Your task to perform on an android device: Go to sound settings Image 0: 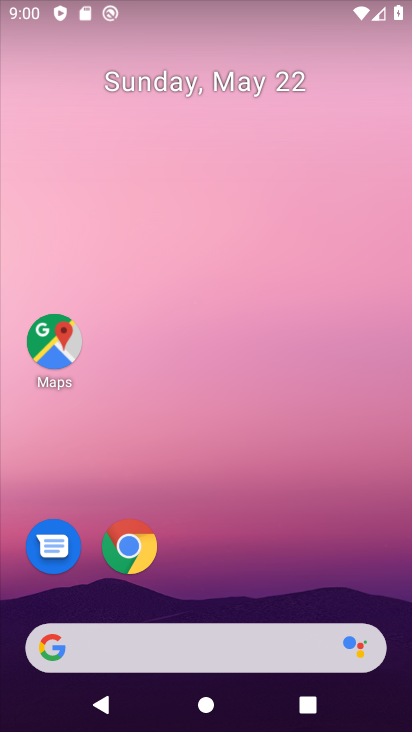
Step 0: drag from (154, 609) to (246, 107)
Your task to perform on an android device: Go to sound settings Image 1: 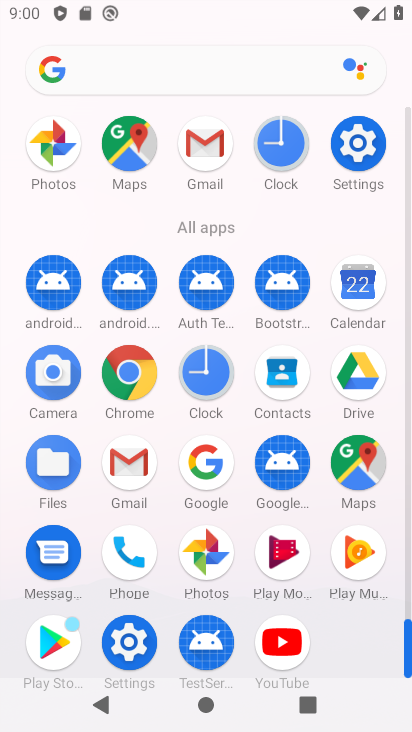
Step 1: click (347, 152)
Your task to perform on an android device: Go to sound settings Image 2: 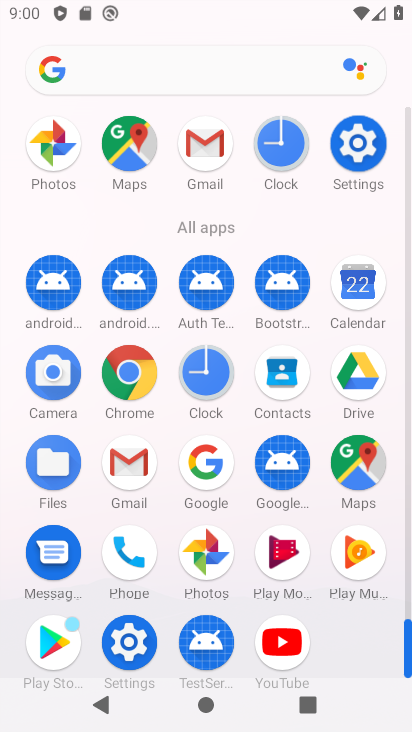
Step 2: click (347, 152)
Your task to perform on an android device: Go to sound settings Image 3: 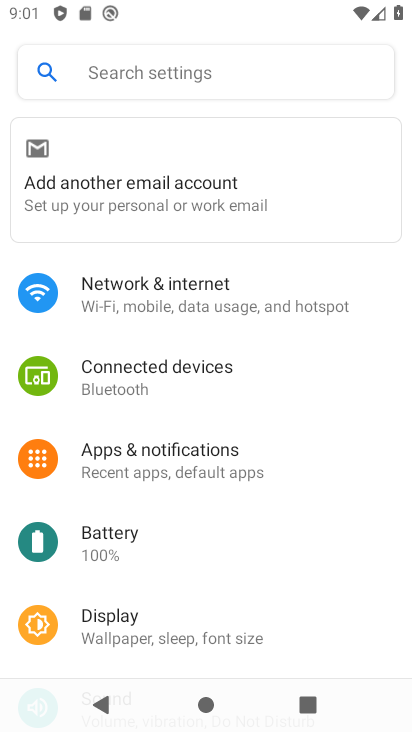
Step 3: drag from (195, 640) to (237, 65)
Your task to perform on an android device: Go to sound settings Image 4: 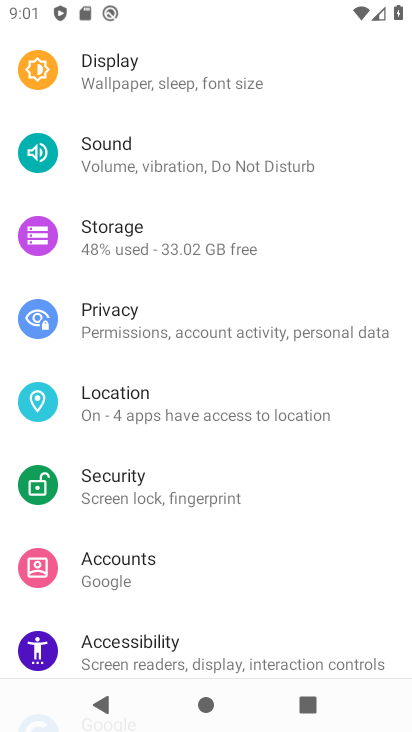
Step 4: click (185, 164)
Your task to perform on an android device: Go to sound settings Image 5: 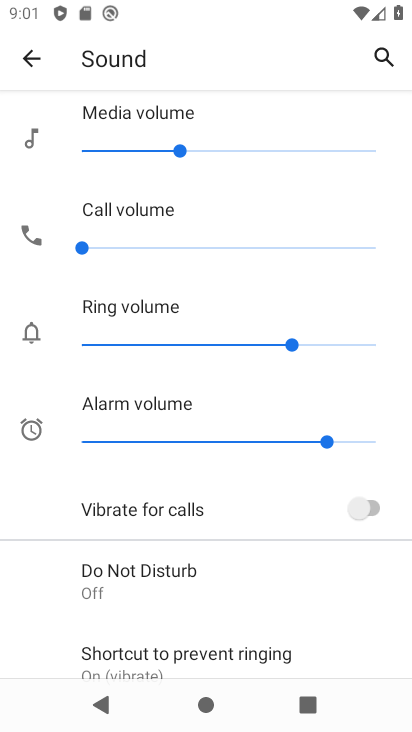
Step 5: task complete